Your task to perform on an android device: check data usage Image 0: 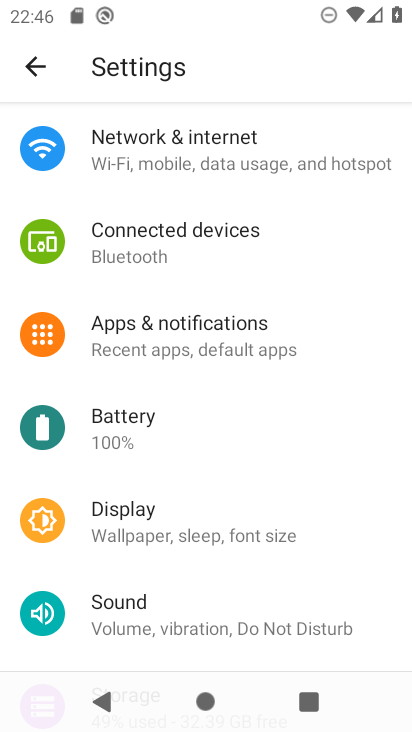
Step 0: click (264, 161)
Your task to perform on an android device: check data usage Image 1: 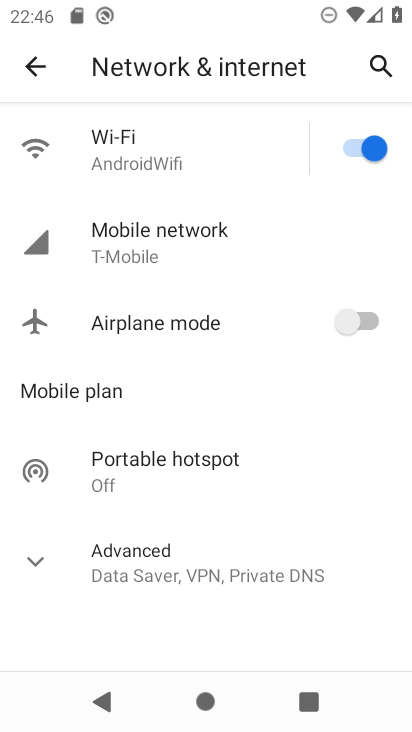
Step 1: click (226, 244)
Your task to perform on an android device: check data usage Image 2: 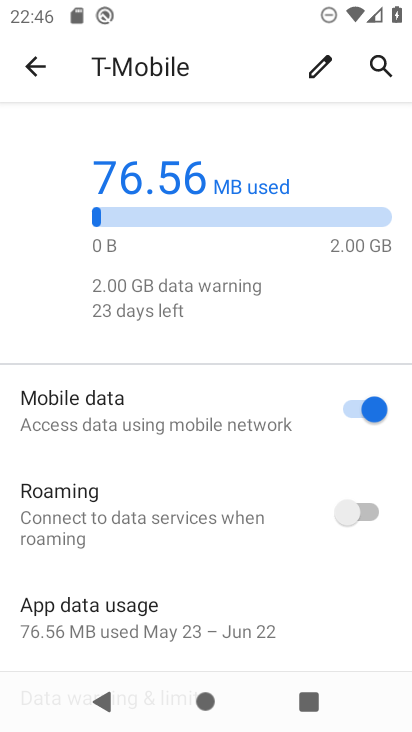
Step 2: task complete